Your task to perform on an android device: Turn off the flashlight Image 0: 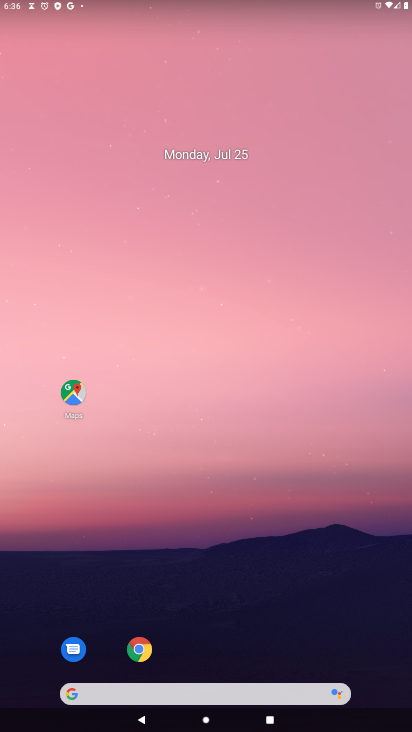
Step 0: drag from (305, 682) to (279, 112)
Your task to perform on an android device: Turn off the flashlight Image 1: 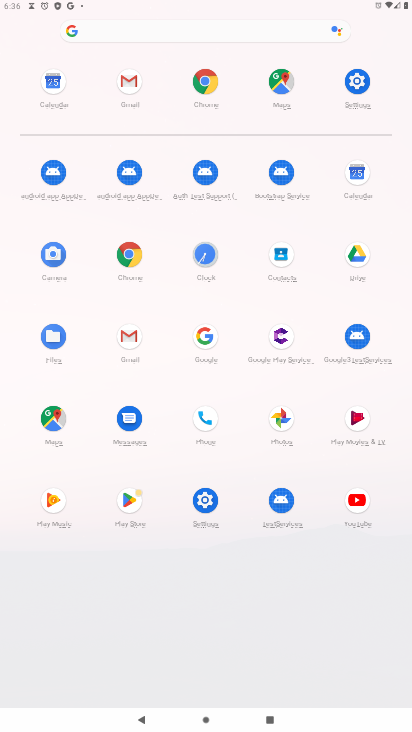
Step 1: task complete